Your task to perform on an android device: Open the calendar and show me this week's events Image 0: 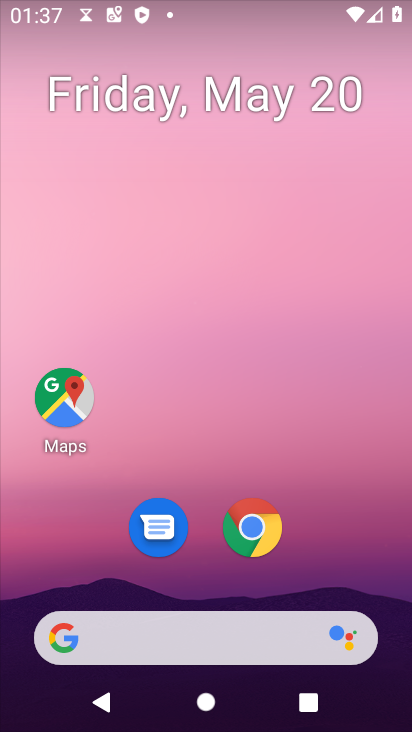
Step 0: press home button
Your task to perform on an android device: Open the calendar and show me this week's events Image 1: 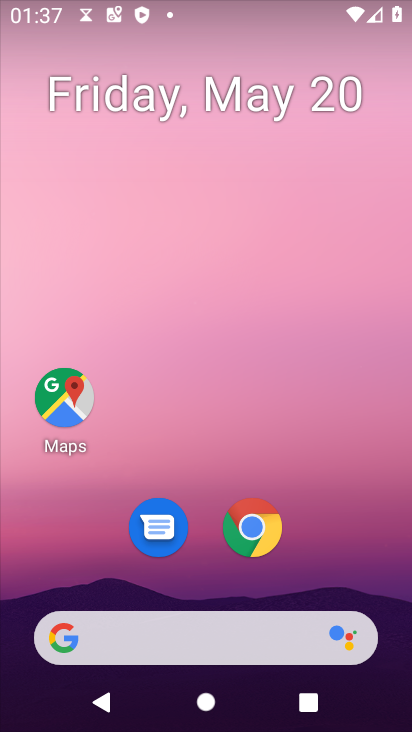
Step 1: drag from (156, 646) to (223, 162)
Your task to perform on an android device: Open the calendar and show me this week's events Image 2: 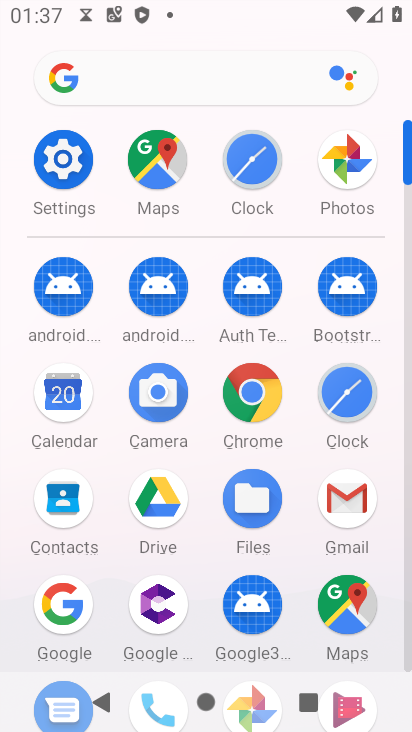
Step 2: click (63, 405)
Your task to perform on an android device: Open the calendar and show me this week's events Image 3: 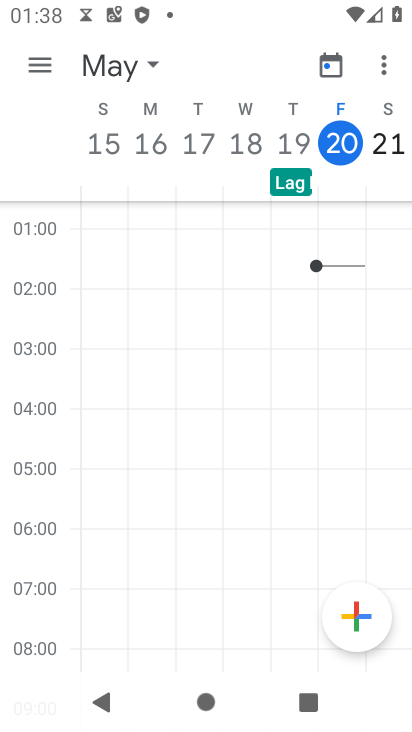
Step 3: click (109, 71)
Your task to perform on an android device: Open the calendar and show me this week's events Image 4: 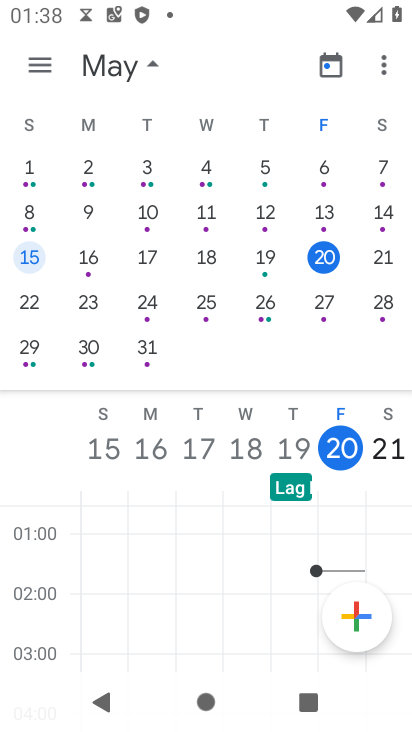
Step 4: click (45, 57)
Your task to perform on an android device: Open the calendar and show me this week's events Image 5: 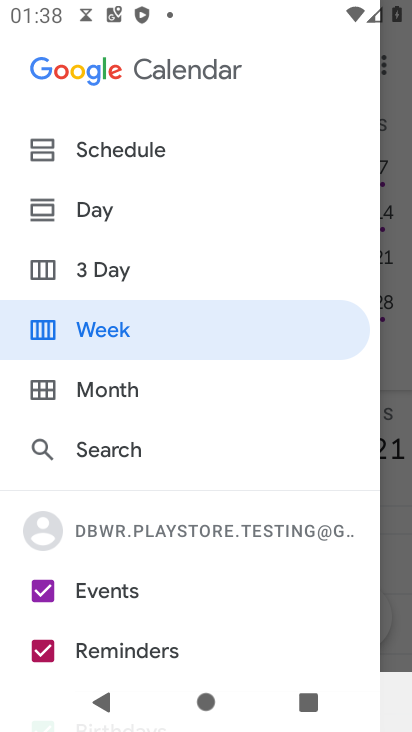
Step 5: click (96, 146)
Your task to perform on an android device: Open the calendar and show me this week's events Image 6: 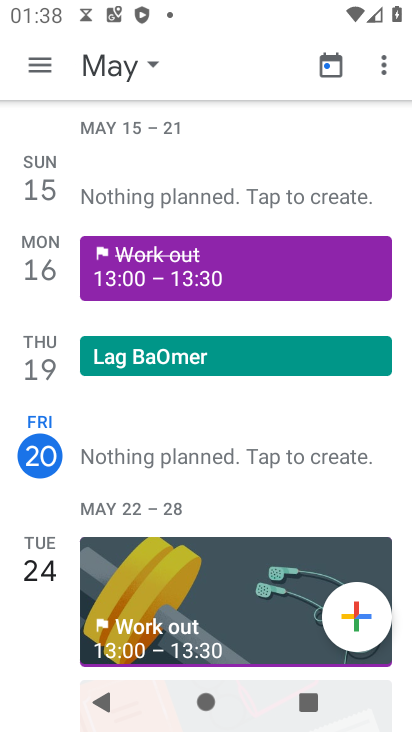
Step 6: task complete